Your task to perform on an android device: toggle wifi Image 0: 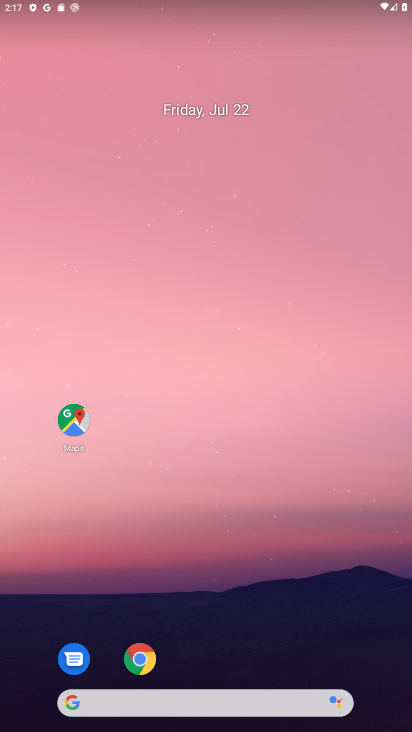
Step 0: drag from (203, 517) to (192, 245)
Your task to perform on an android device: toggle wifi Image 1: 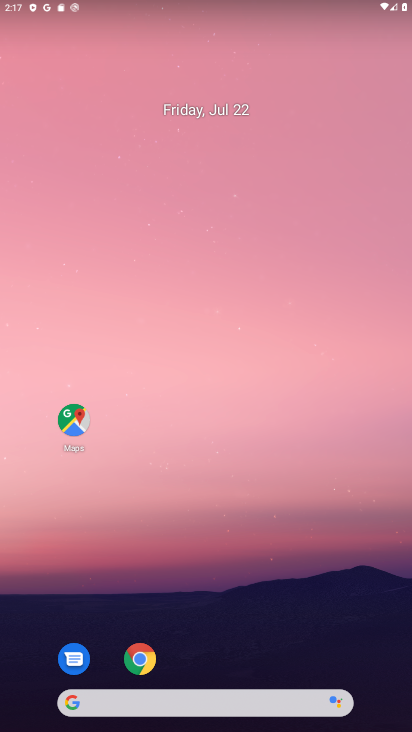
Step 1: drag from (195, 499) to (210, 6)
Your task to perform on an android device: toggle wifi Image 2: 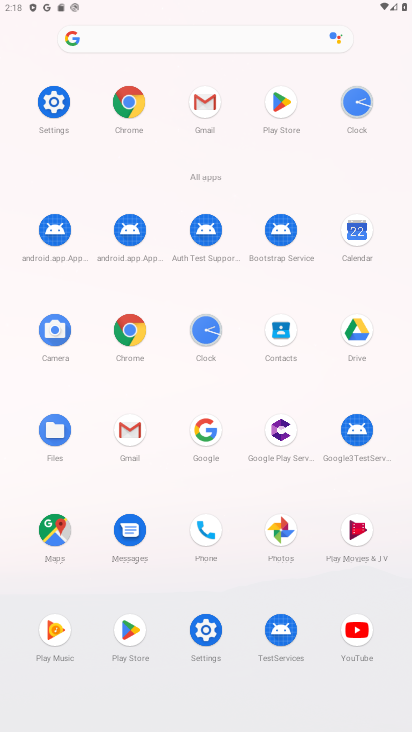
Step 2: click (55, 106)
Your task to perform on an android device: toggle wifi Image 3: 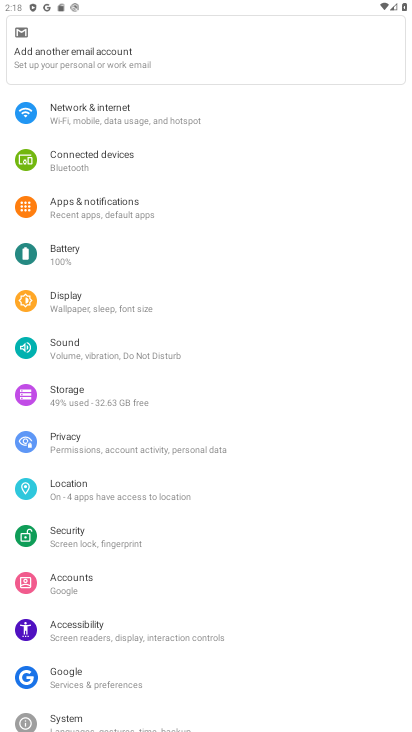
Step 3: click (111, 103)
Your task to perform on an android device: toggle wifi Image 4: 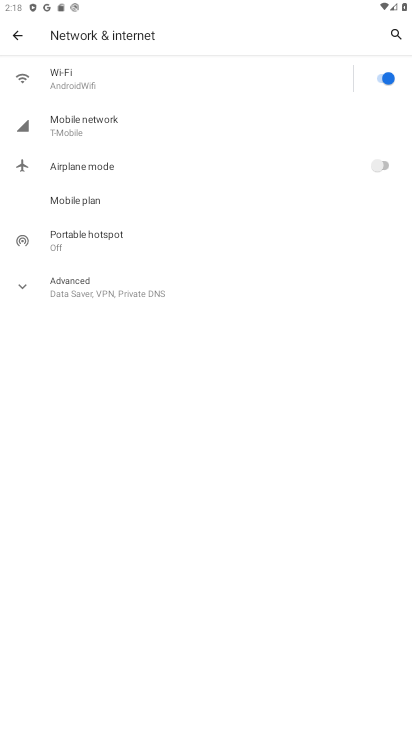
Step 4: click (386, 74)
Your task to perform on an android device: toggle wifi Image 5: 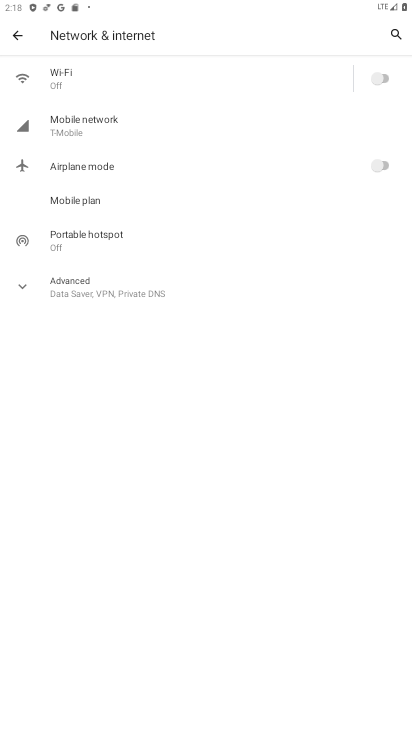
Step 5: task complete